Your task to perform on an android device: set the stopwatch Image 0: 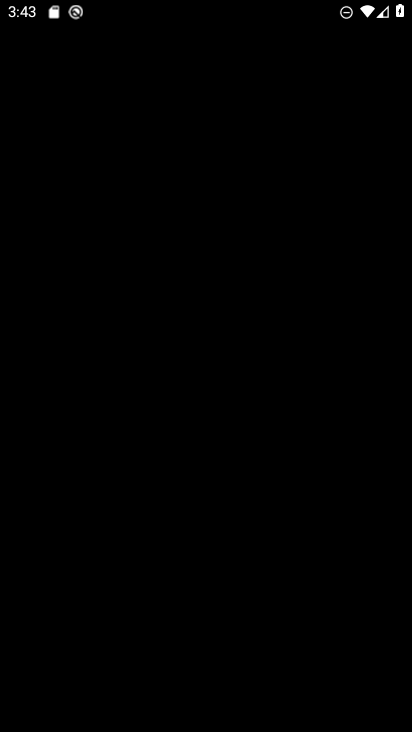
Step 0: press home button
Your task to perform on an android device: set the stopwatch Image 1: 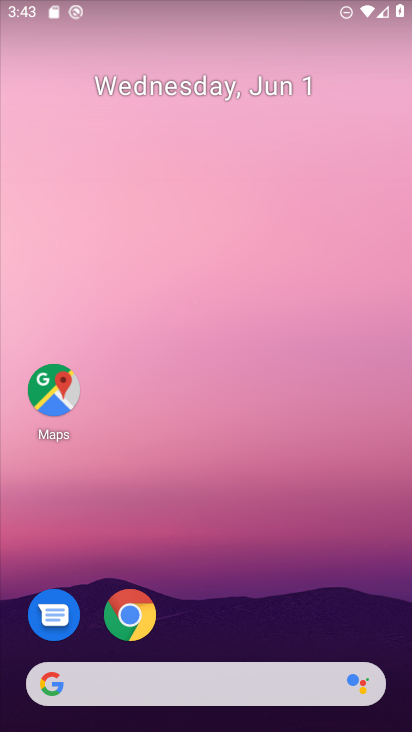
Step 1: drag from (212, 640) to (225, 5)
Your task to perform on an android device: set the stopwatch Image 2: 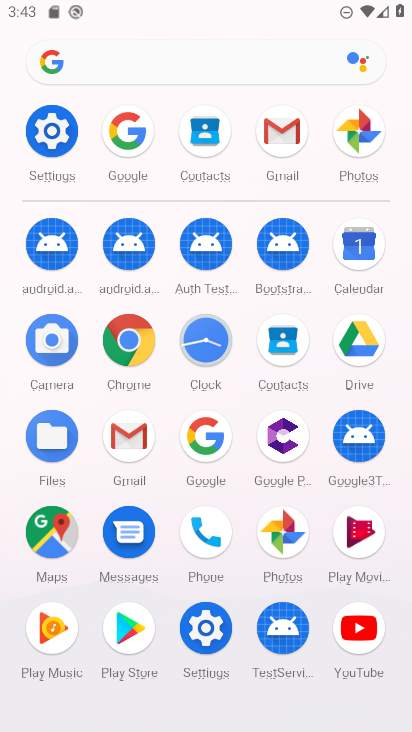
Step 2: click (203, 333)
Your task to perform on an android device: set the stopwatch Image 3: 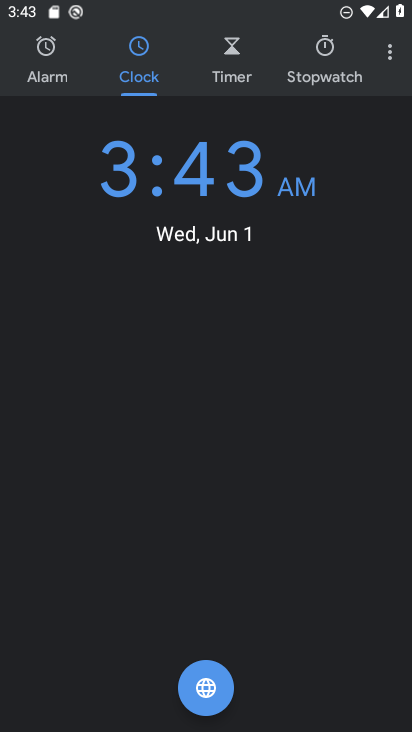
Step 3: click (323, 44)
Your task to perform on an android device: set the stopwatch Image 4: 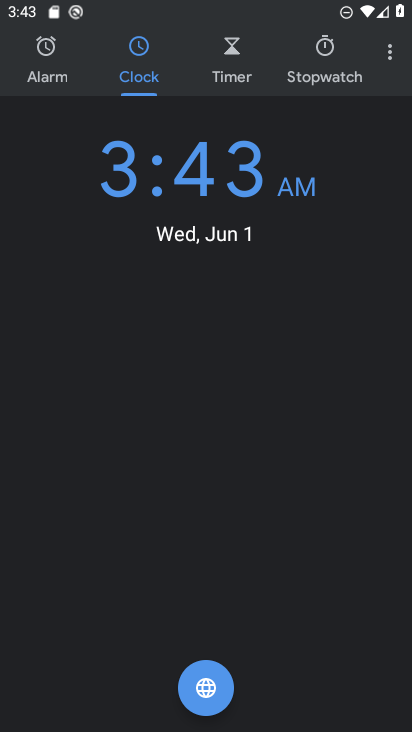
Step 4: click (326, 49)
Your task to perform on an android device: set the stopwatch Image 5: 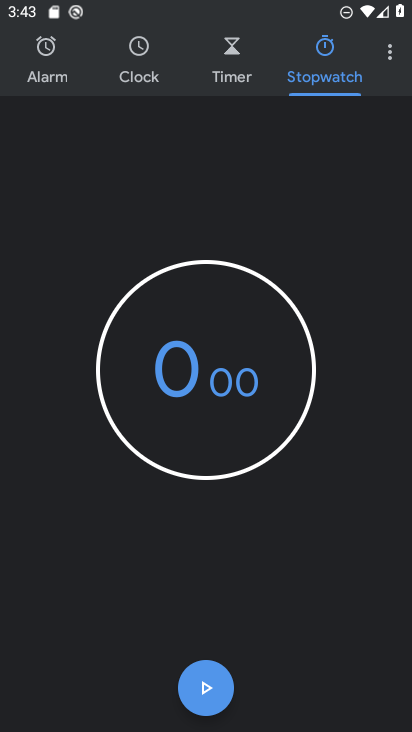
Step 5: click (202, 678)
Your task to perform on an android device: set the stopwatch Image 6: 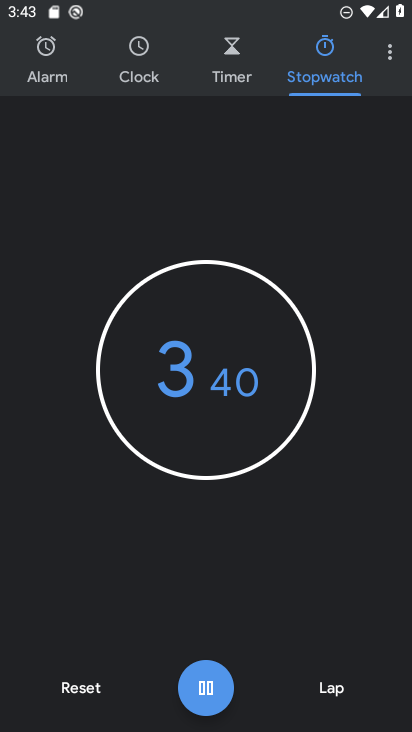
Step 6: task complete